Your task to perform on an android device: Check the news Image 0: 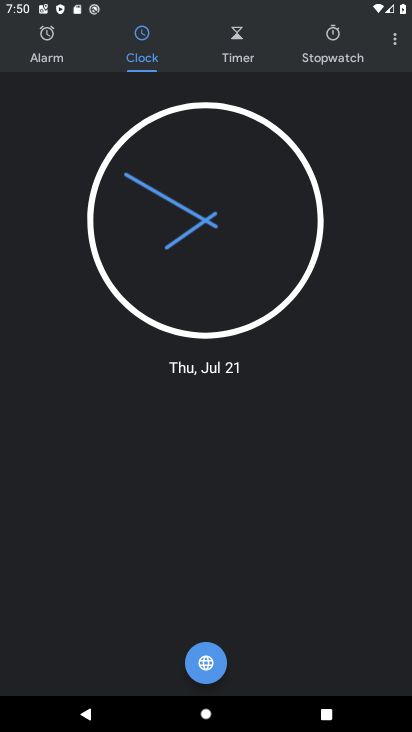
Step 0: press home button
Your task to perform on an android device: Check the news Image 1: 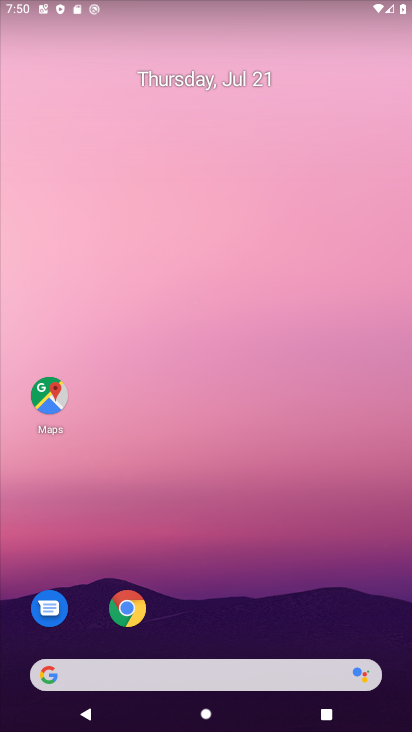
Step 1: drag from (194, 664) to (208, 204)
Your task to perform on an android device: Check the news Image 2: 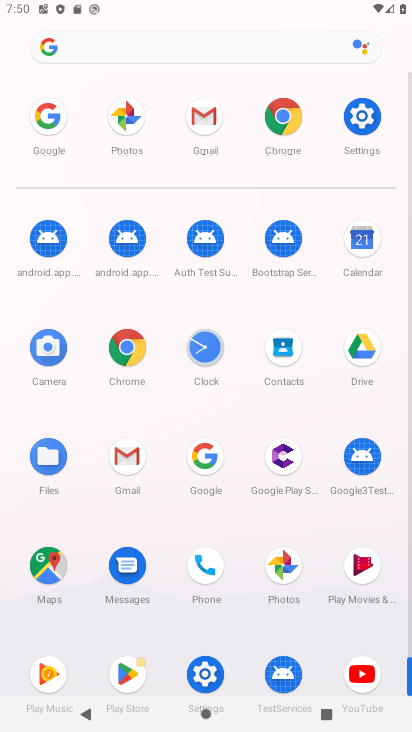
Step 2: click (202, 454)
Your task to perform on an android device: Check the news Image 3: 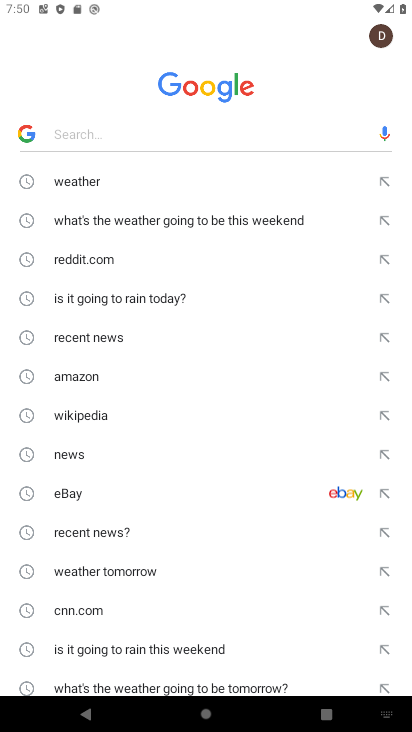
Step 3: click (187, 139)
Your task to perform on an android device: Check the news Image 4: 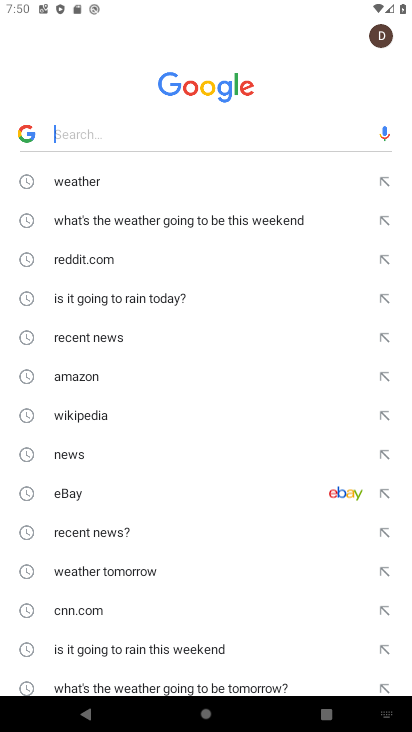
Step 4: click (74, 457)
Your task to perform on an android device: Check the news Image 5: 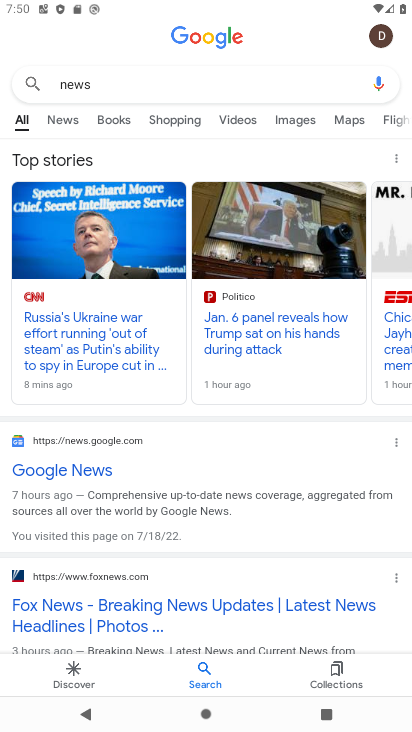
Step 5: click (94, 337)
Your task to perform on an android device: Check the news Image 6: 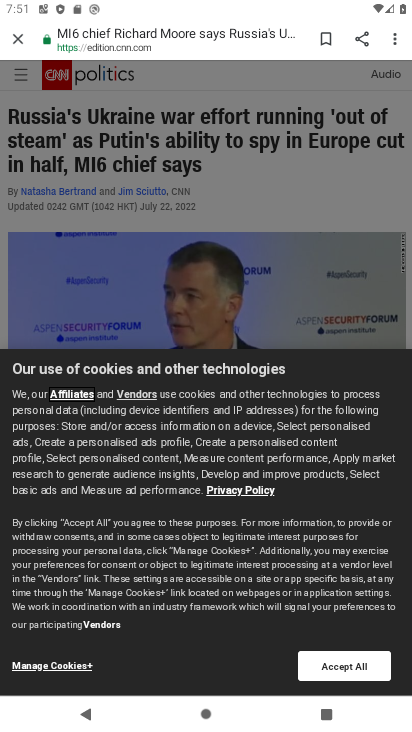
Step 6: click (348, 671)
Your task to perform on an android device: Check the news Image 7: 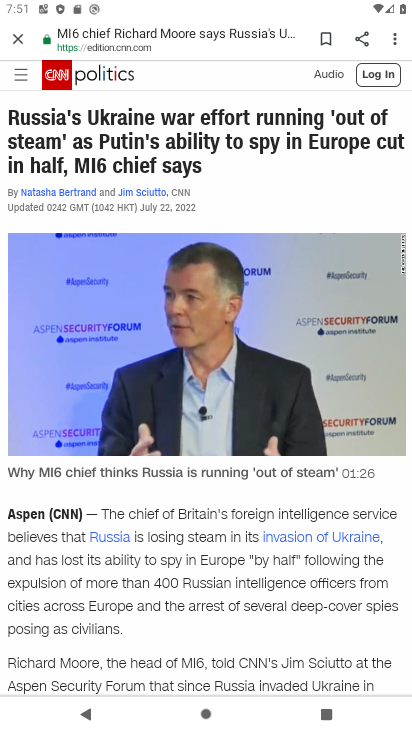
Step 7: task complete